Your task to perform on an android device: Open CNN.com Image 0: 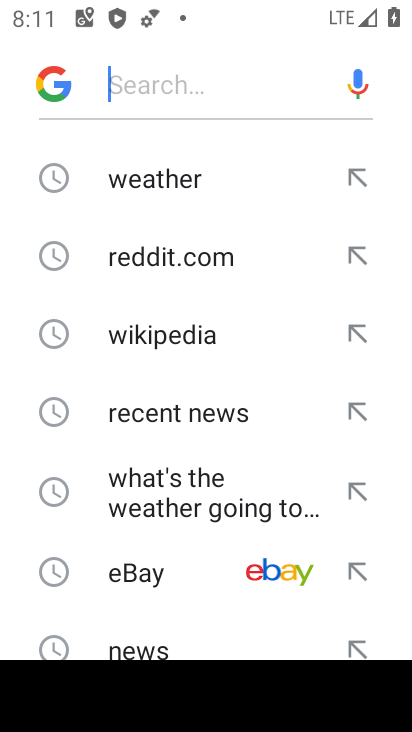
Step 0: press back button
Your task to perform on an android device: Open CNN.com Image 1: 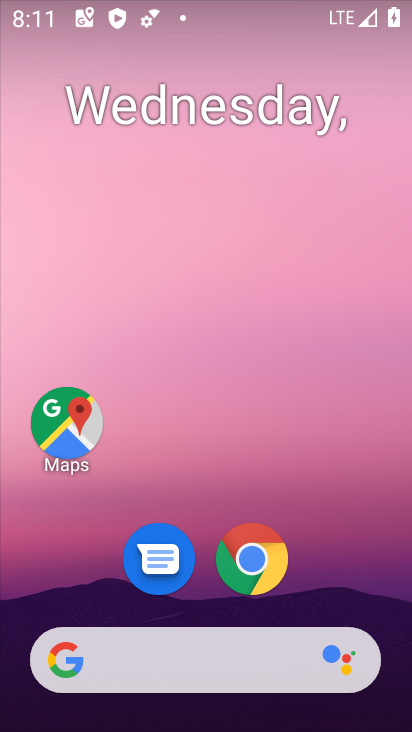
Step 1: click (249, 544)
Your task to perform on an android device: Open CNN.com Image 2: 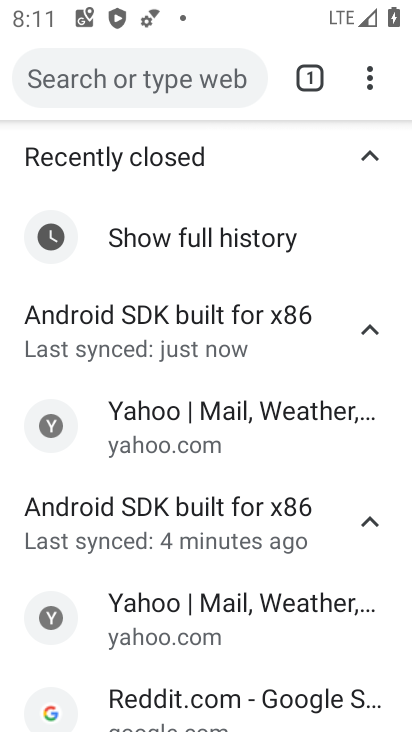
Step 2: click (300, 79)
Your task to perform on an android device: Open CNN.com Image 3: 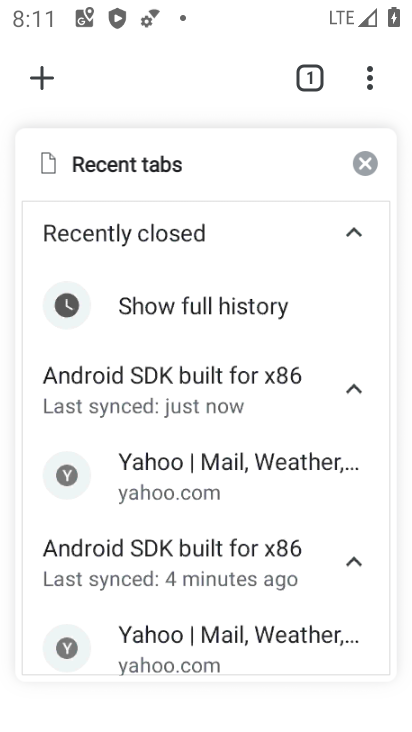
Step 3: click (39, 67)
Your task to perform on an android device: Open CNN.com Image 4: 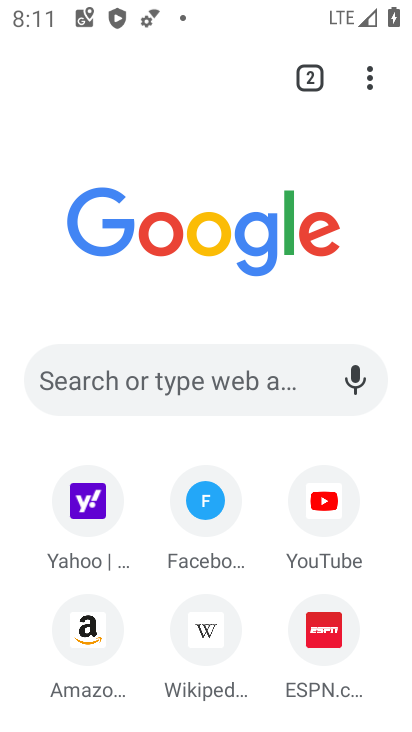
Step 4: click (169, 364)
Your task to perform on an android device: Open CNN.com Image 5: 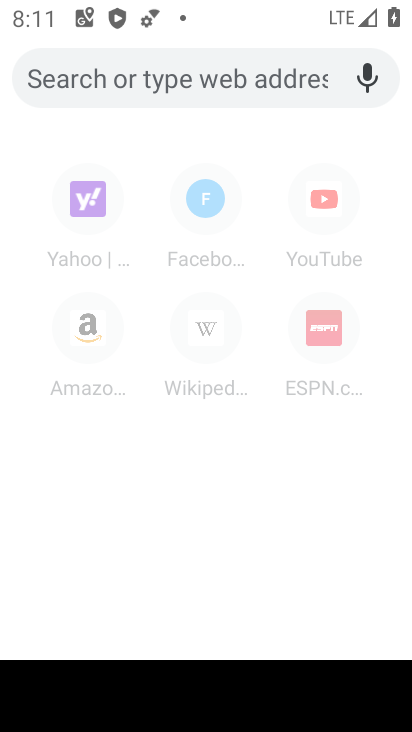
Step 5: type "cnn.com"
Your task to perform on an android device: Open CNN.com Image 6: 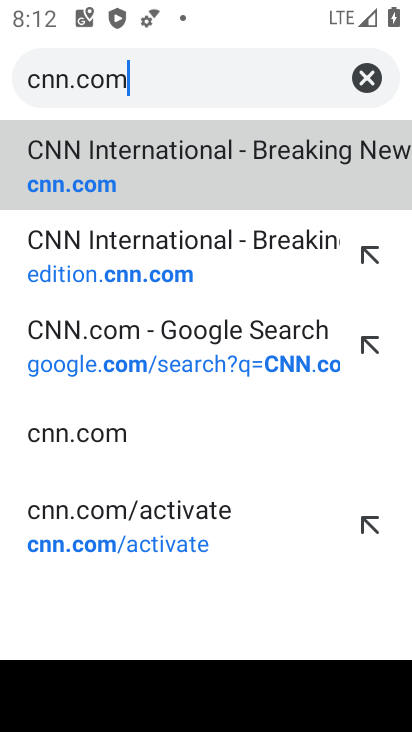
Step 6: click (140, 157)
Your task to perform on an android device: Open CNN.com Image 7: 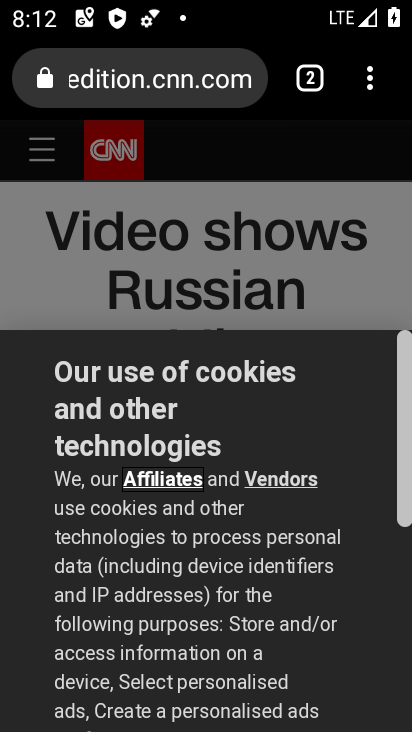
Step 7: task complete